Your task to perform on an android device: Go to CNN.com Image 0: 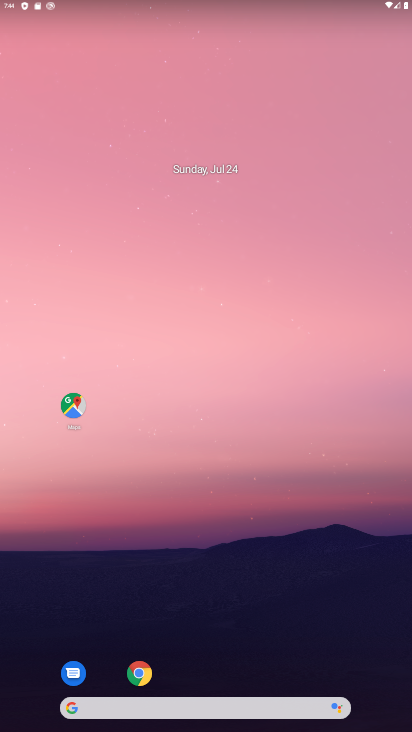
Step 0: drag from (202, 595) to (107, 69)
Your task to perform on an android device: Go to CNN.com Image 1: 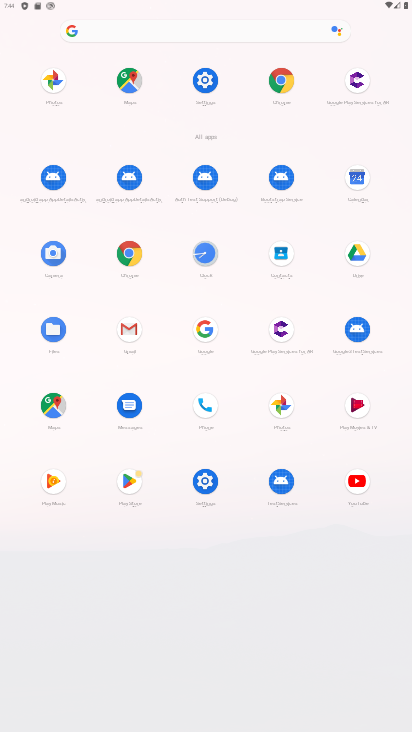
Step 1: click (276, 84)
Your task to perform on an android device: Go to CNN.com Image 2: 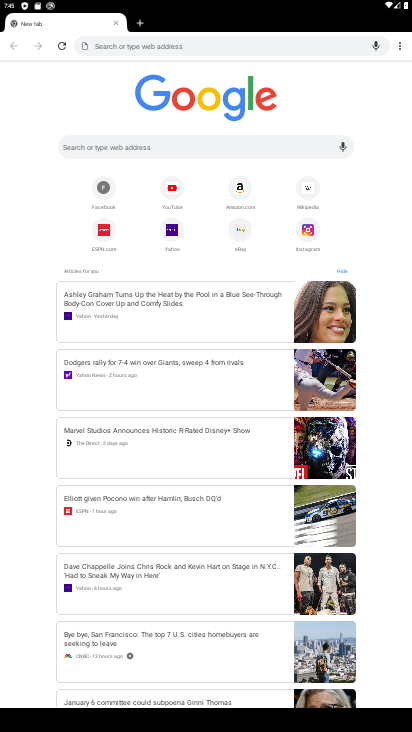
Step 2: click (145, 145)
Your task to perform on an android device: Go to CNN.com Image 3: 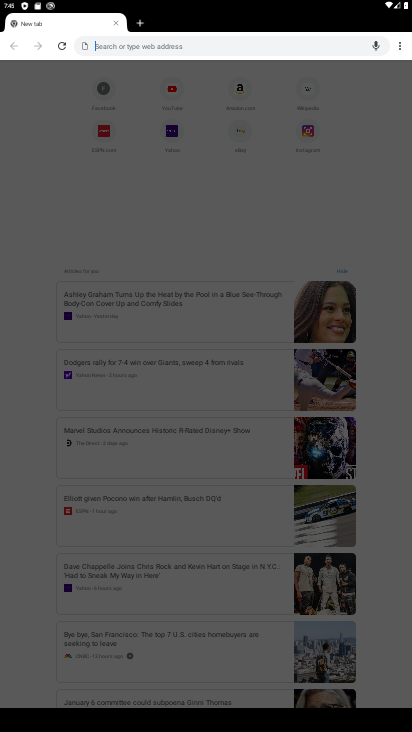
Step 3: type "www.cnn.com"
Your task to perform on an android device: Go to CNN.com Image 4: 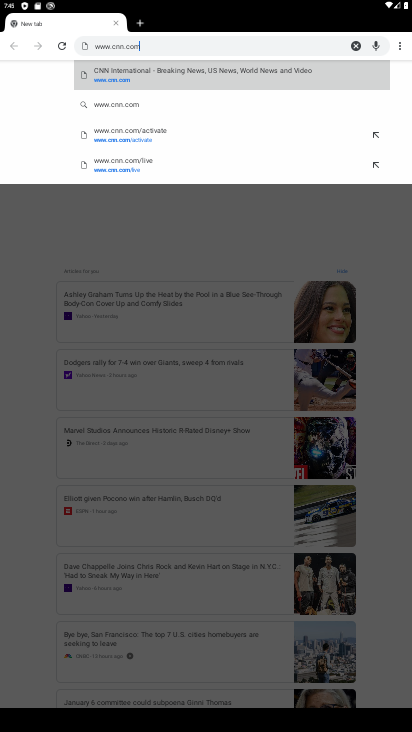
Step 4: click (114, 78)
Your task to perform on an android device: Go to CNN.com Image 5: 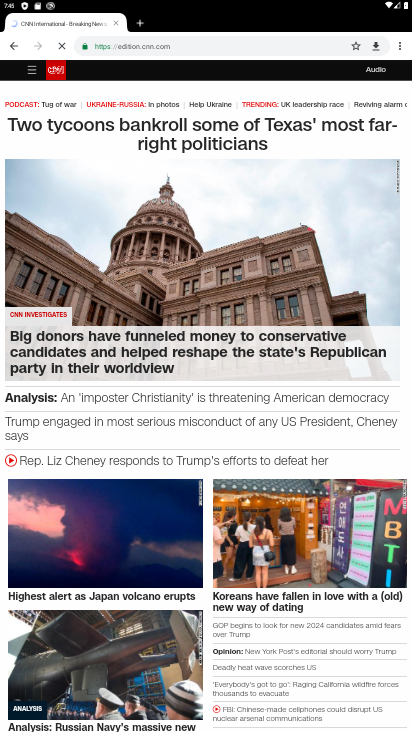
Step 5: task complete